Your task to perform on an android device: Go to settings Image 0: 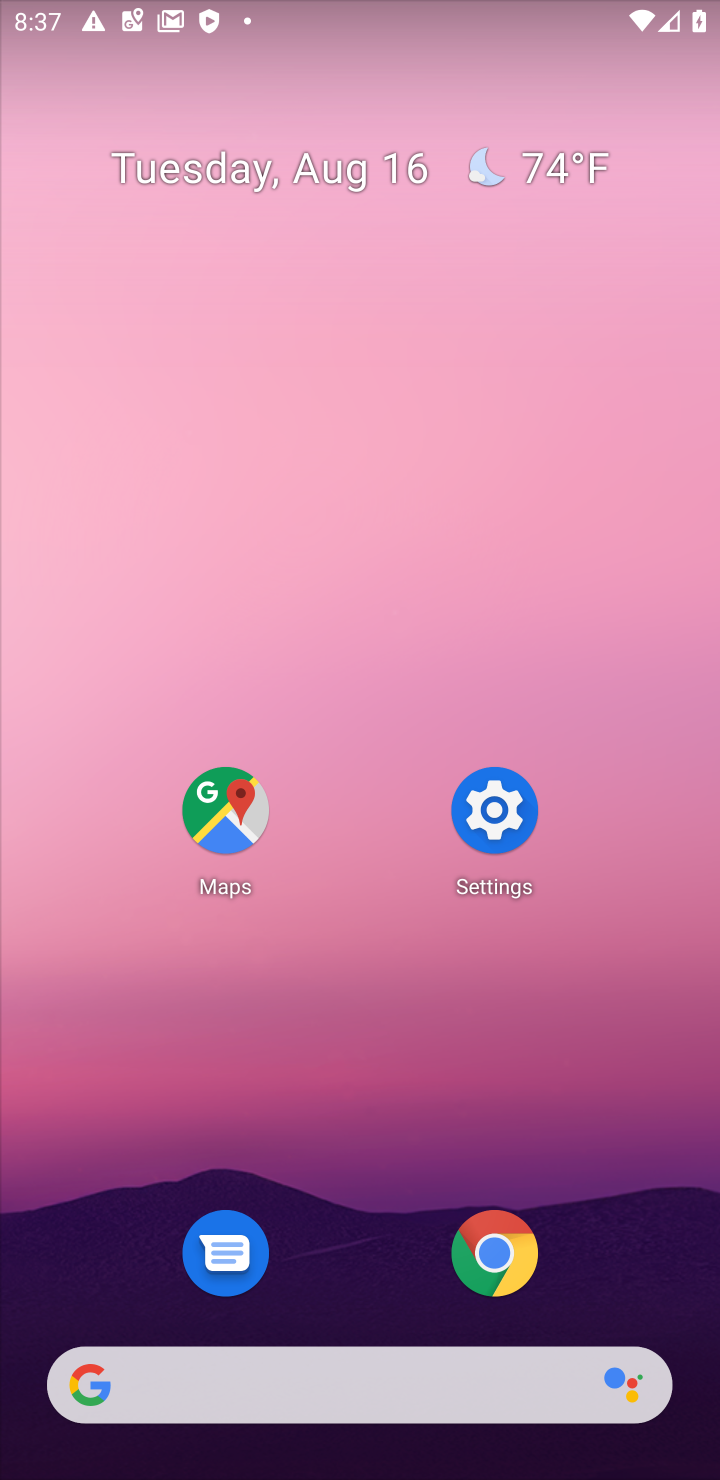
Step 0: click (499, 805)
Your task to perform on an android device: Go to settings Image 1: 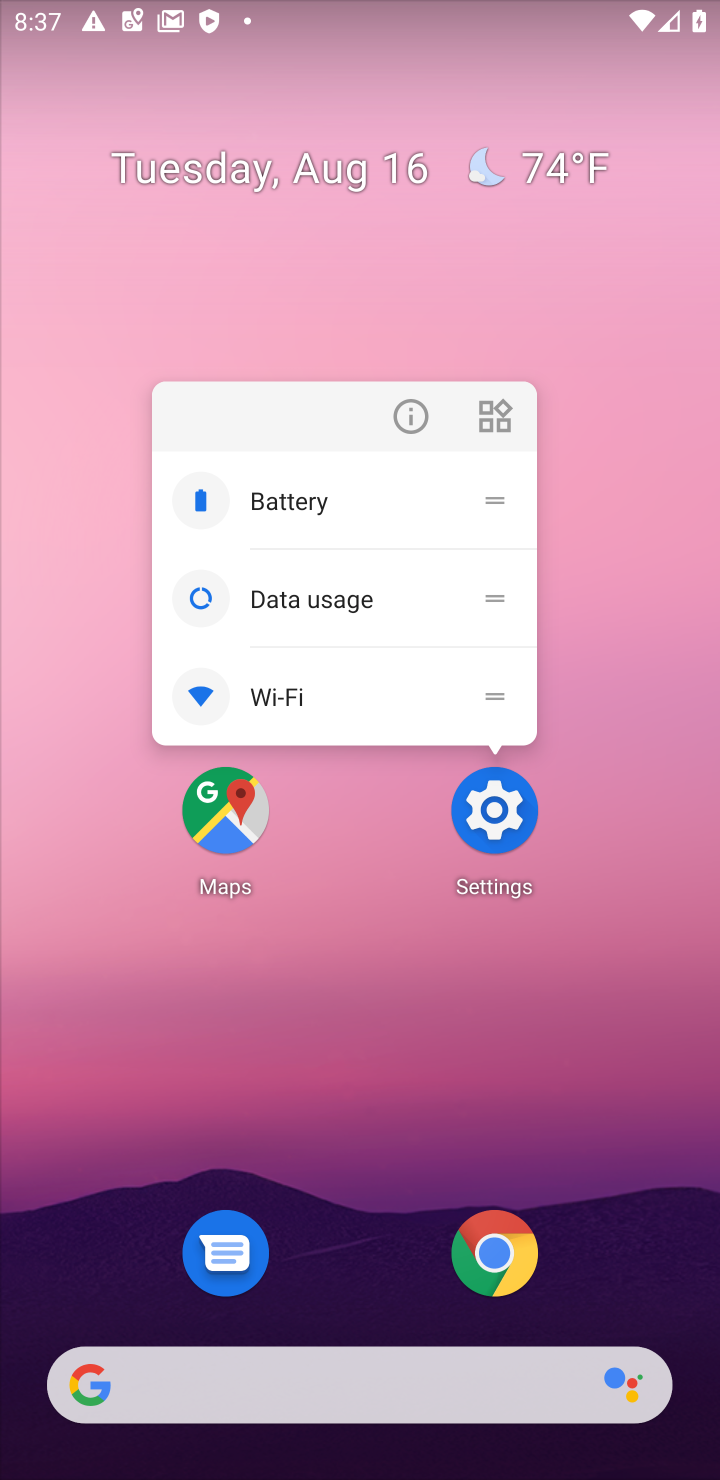
Step 1: click (499, 828)
Your task to perform on an android device: Go to settings Image 2: 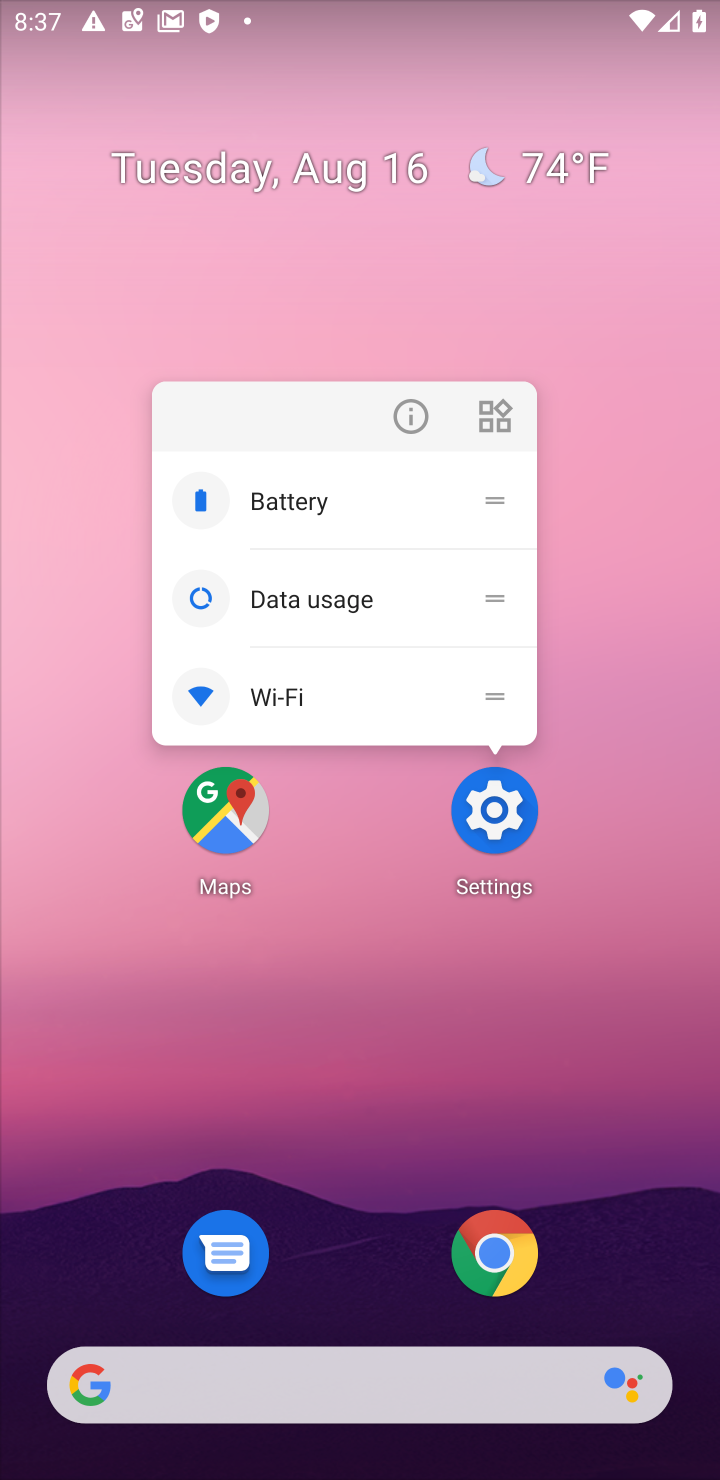
Step 2: click (501, 844)
Your task to perform on an android device: Go to settings Image 3: 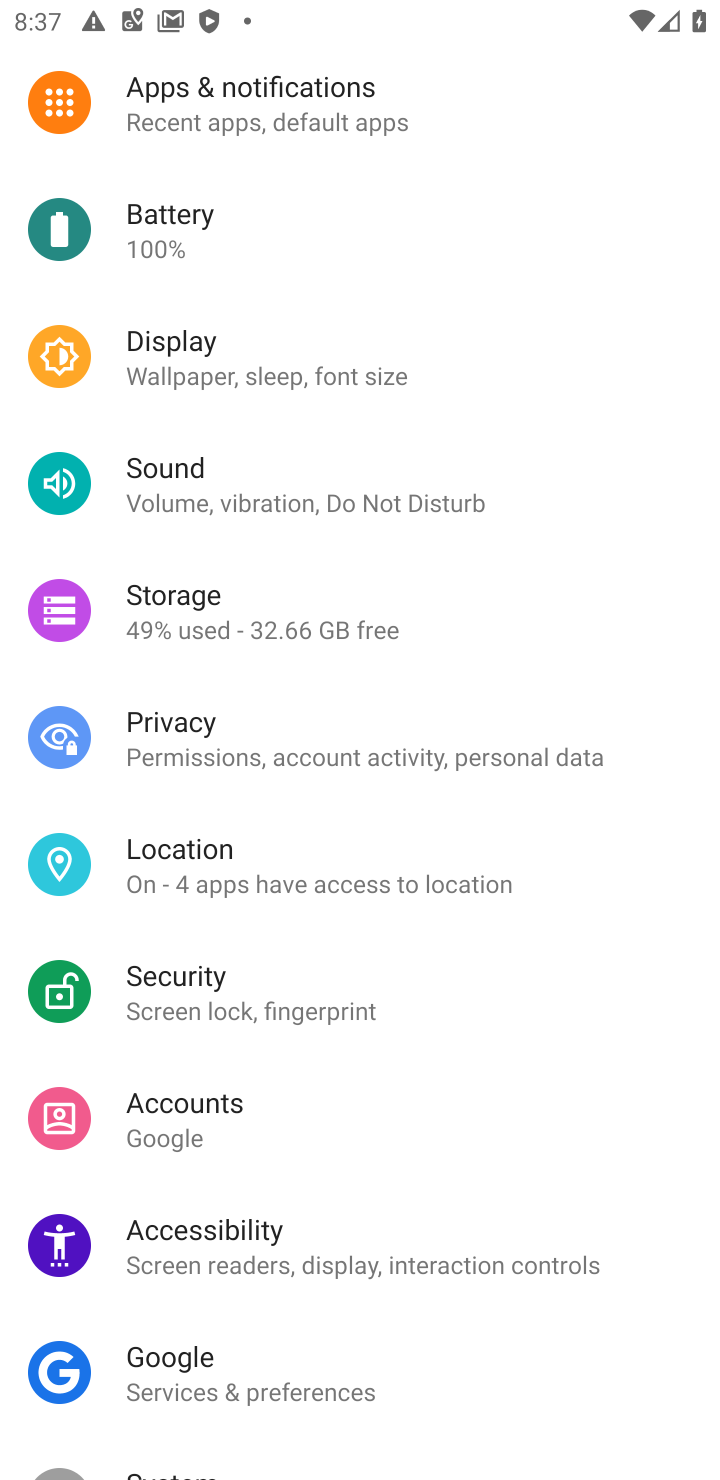
Step 3: task complete